Your task to perform on an android device: Set the phone to "Do not disturb". Image 0: 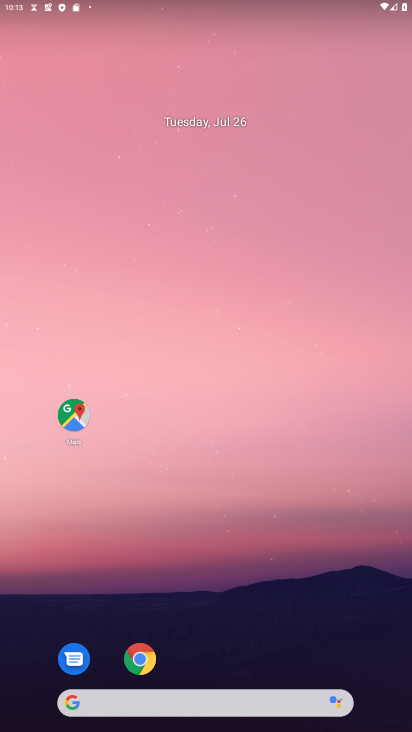
Step 0: drag from (389, 598) to (301, 103)
Your task to perform on an android device: Set the phone to "Do not disturb". Image 1: 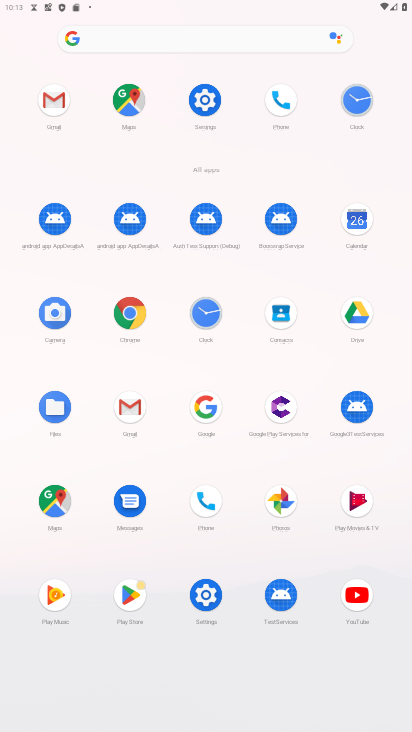
Step 1: click (208, 100)
Your task to perform on an android device: Set the phone to "Do not disturb". Image 2: 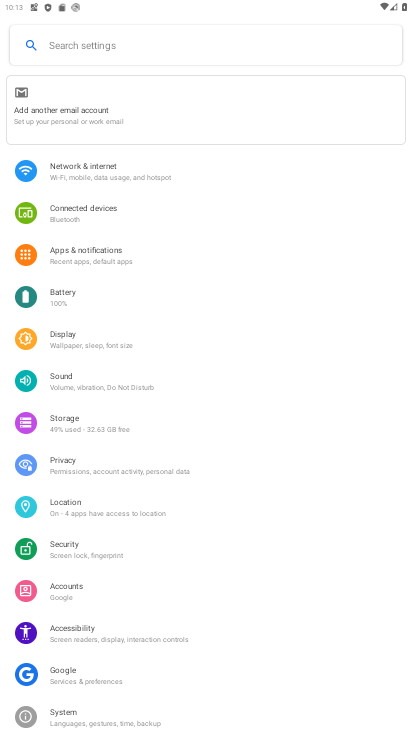
Step 2: click (63, 372)
Your task to perform on an android device: Set the phone to "Do not disturb". Image 3: 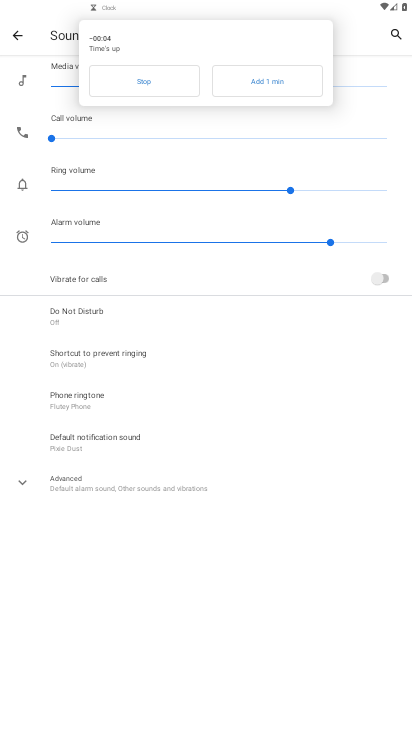
Step 3: click (177, 77)
Your task to perform on an android device: Set the phone to "Do not disturb". Image 4: 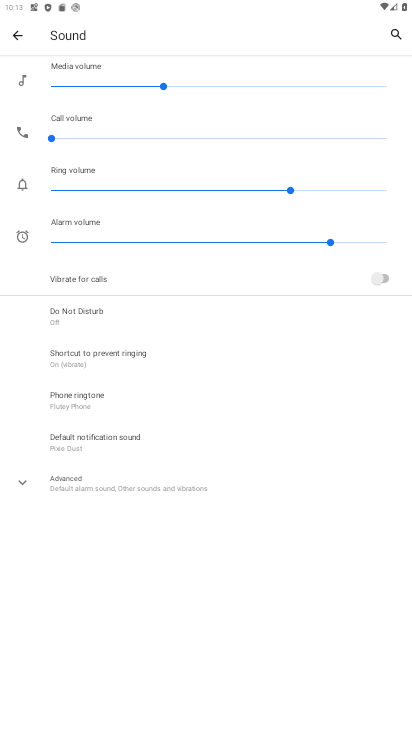
Step 4: click (35, 479)
Your task to perform on an android device: Set the phone to "Do not disturb". Image 5: 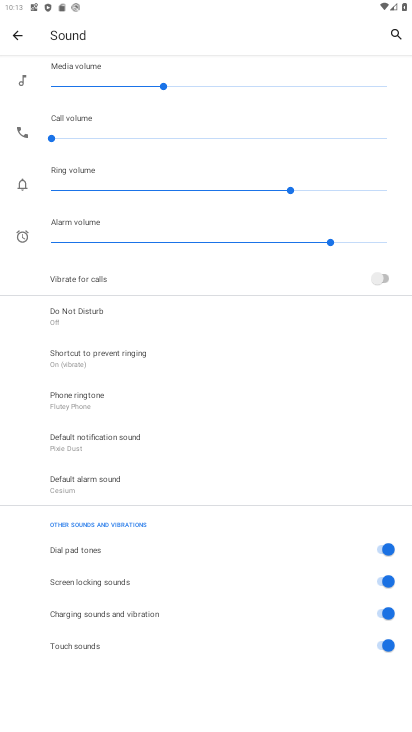
Step 5: click (75, 312)
Your task to perform on an android device: Set the phone to "Do not disturb". Image 6: 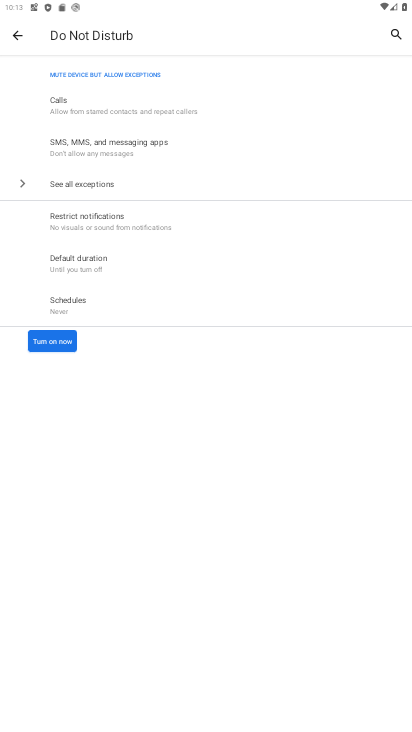
Step 6: click (62, 336)
Your task to perform on an android device: Set the phone to "Do not disturb". Image 7: 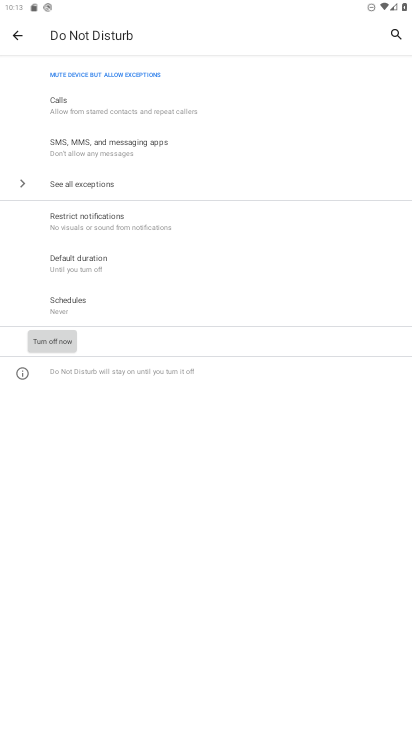
Step 7: task complete